Your task to perform on an android device: Open Google Image 0: 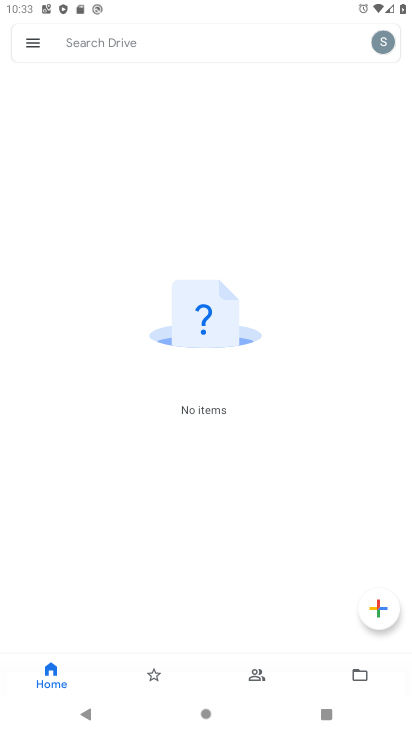
Step 0: press home button
Your task to perform on an android device: Open Google Image 1: 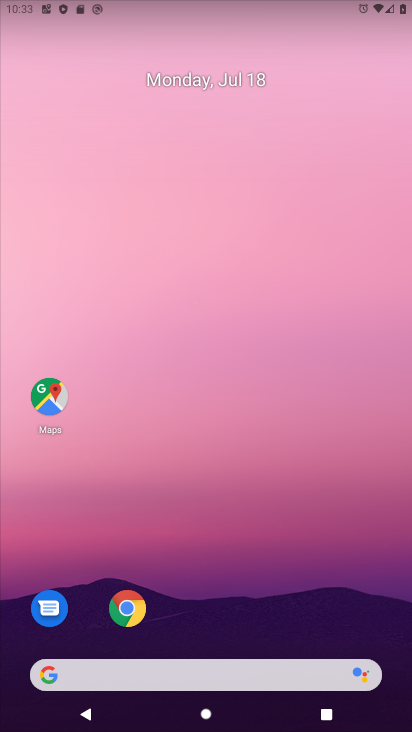
Step 1: click (100, 679)
Your task to perform on an android device: Open Google Image 2: 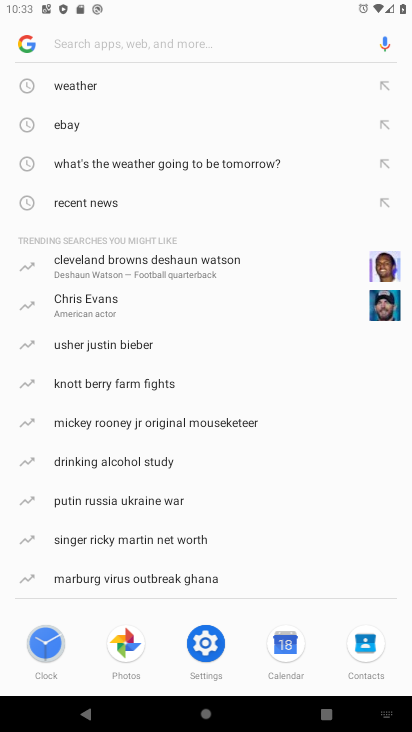
Step 2: task complete